Your task to perform on an android device: Go to Yahoo.com Image 0: 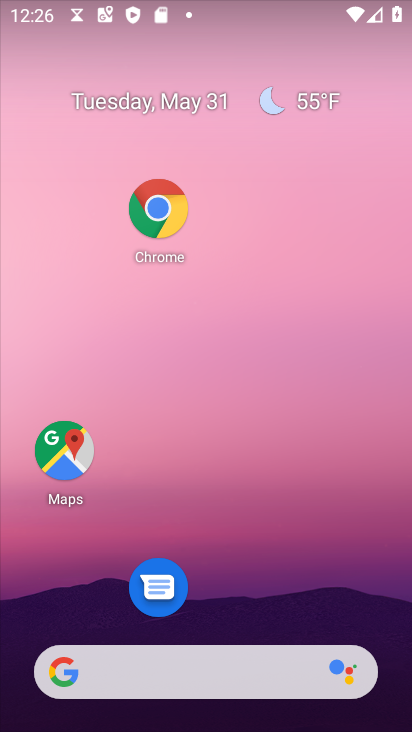
Step 0: drag from (257, 598) to (210, 235)
Your task to perform on an android device: Go to Yahoo.com Image 1: 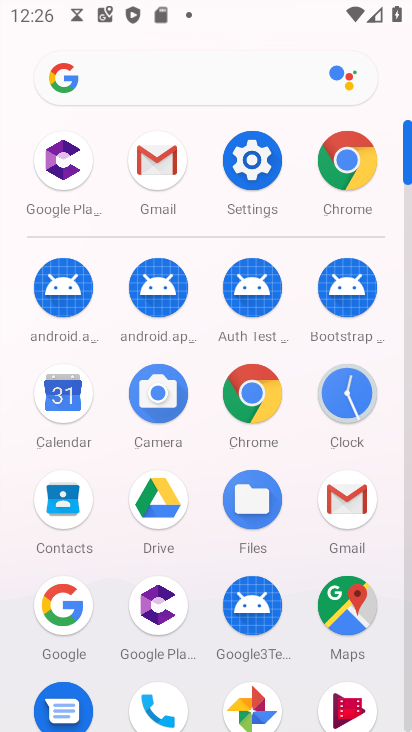
Step 1: click (332, 169)
Your task to perform on an android device: Go to Yahoo.com Image 2: 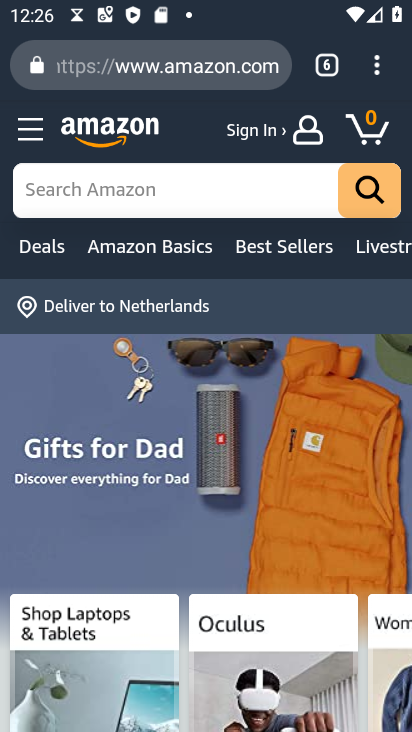
Step 2: click (332, 72)
Your task to perform on an android device: Go to Yahoo.com Image 3: 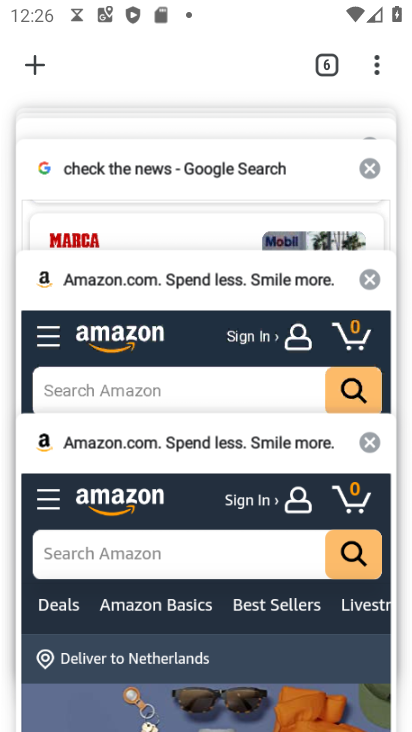
Step 3: drag from (239, 141) to (265, 521)
Your task to perform on an android device: Go to Yahoo.com Image 4: 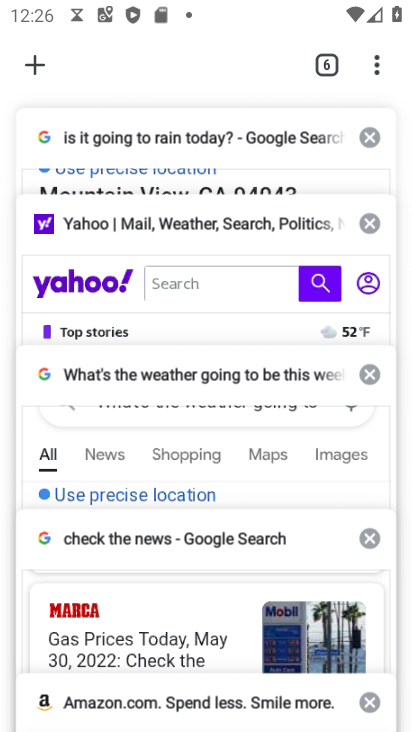
Step 4: click (227, 367)
Your task to perform on an android device: Go to Yahoo.com Image 5: 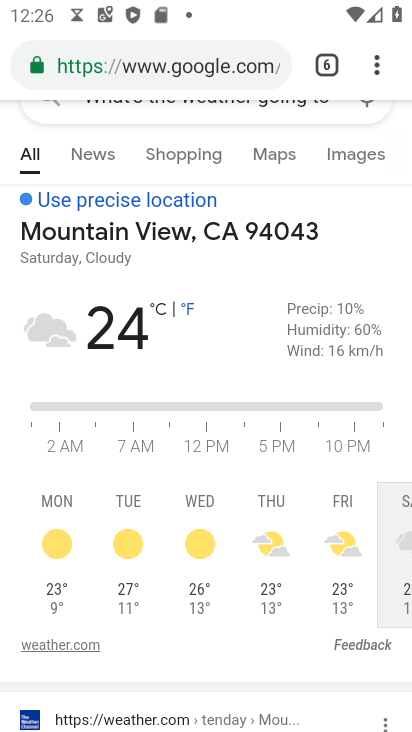
Step 5: click (318, 57)
Your task to perform on an android device: Go to Yahoo.com Image 6: 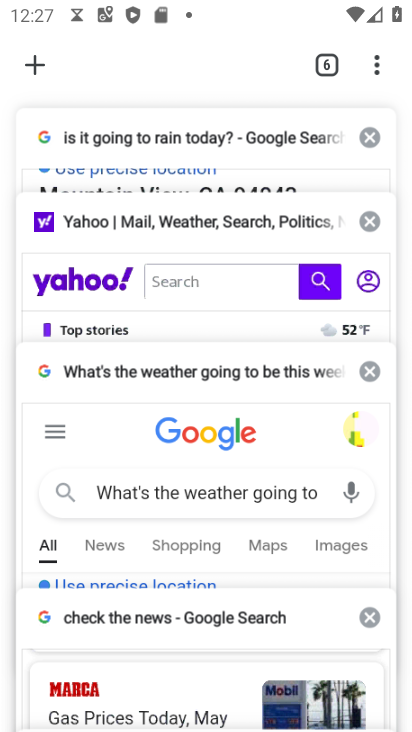
Step 6: click (226, 238)
Your task to perform on an android device: Go to Yahoo.com Image 7: 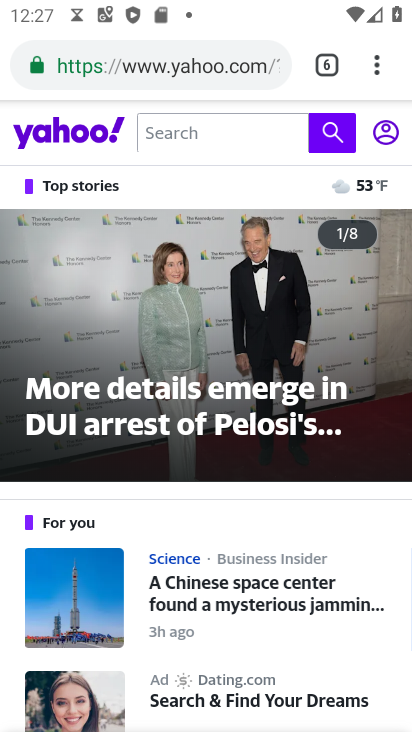
Step 7: task complete